Your task to perform on an android device: change the clock display to analog Image 0: 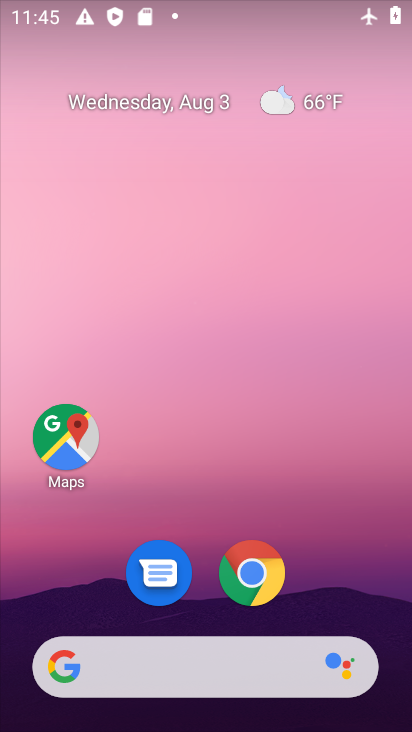
Step 0: drag from (370, 558) to (321, 168)
Your task to perform on an android device: change the clock display to analog Image 1: 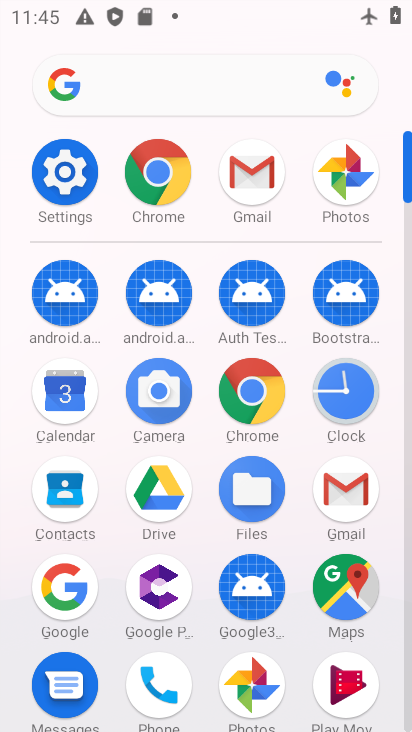
Step 1: click (348, 398)
Your task to perform on an android device: change the clock display to analog Image 2: 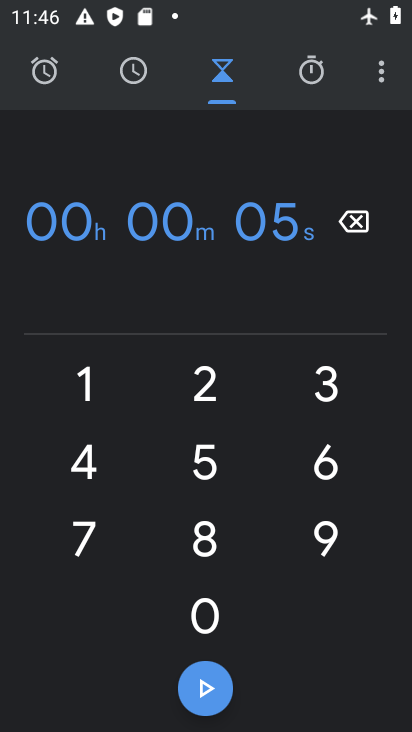
Step 2: click (379, 61)
Your task to perform on an android device: change the clock display to analog Image 3: 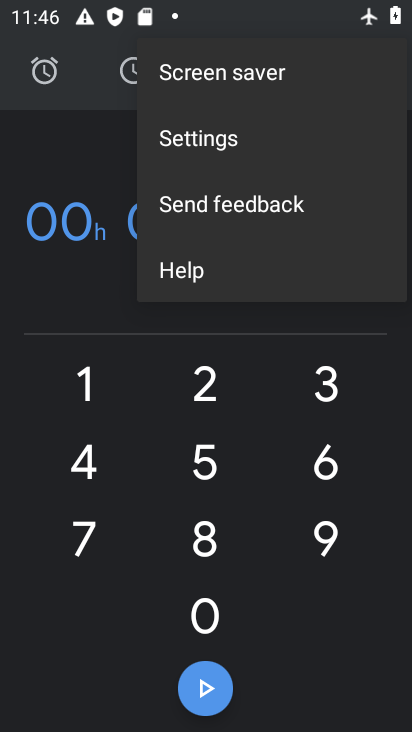
Step 3: click (214, 131)
Your task to perform on an android device: change the clock display to analog Image 4: 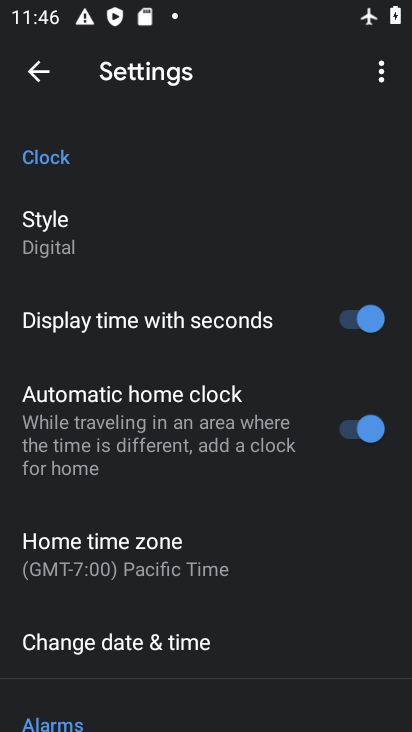
Step 4: click (63, 211)
Your task to perform on an android device: change the clock display to analog Image 5: 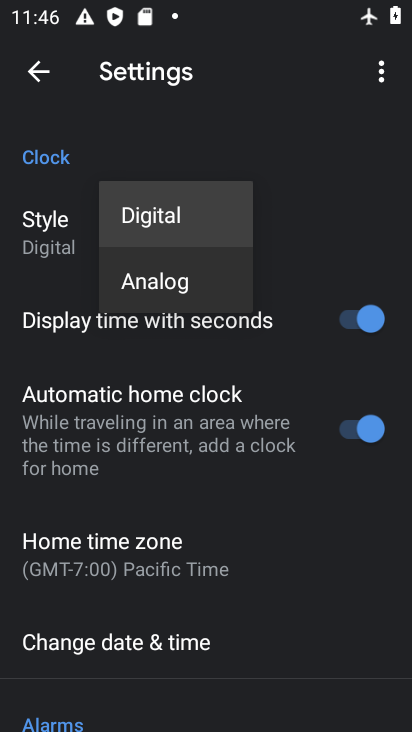
Step 5: click (174, 295)
Your task to perform on an android device: change the clock display to analog Image 6: 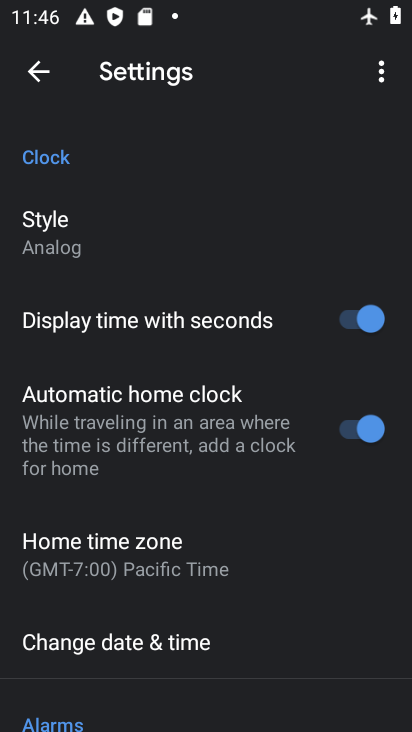
Step 6: task complete